Your task to perform on an android device: toggle improve location accuracy Image 0: 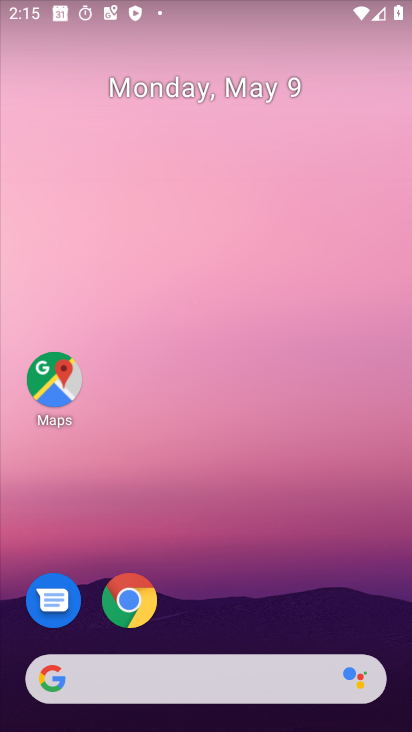
Step 0: drag from (235, 612) to (272, 258)
Your task to perform on an android device: toggle improve location accuracy Image 1: 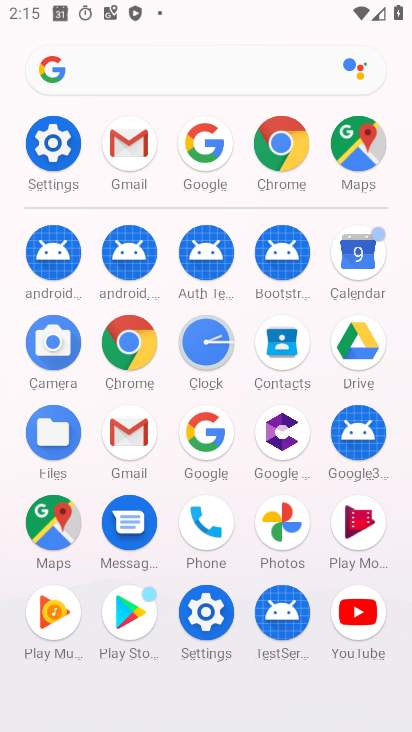
Step 1: click (223, 621)
Your task to perform on an android device: toggle improve location accuracy Image 2: 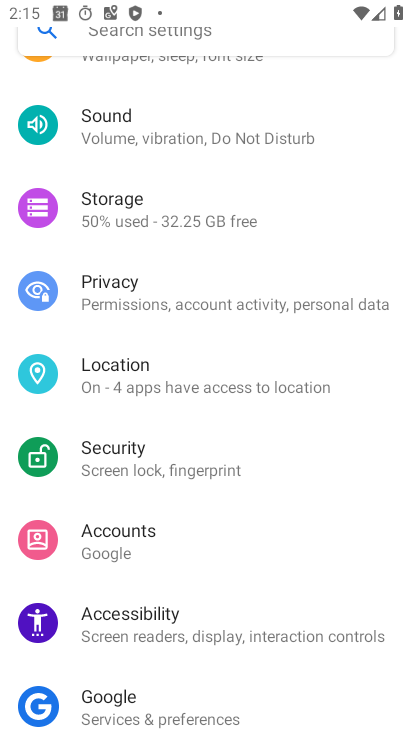
Step 2: click (189, 389)
Your task to perform on an android device: toggle improve location accuracy Image 3: 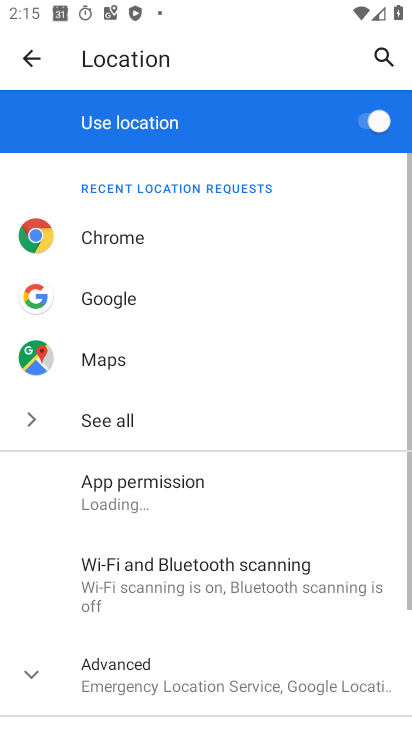
Step 3: drag from (240, 659) to (229, 277)
Your task to perform on an android device: toggle improve location accuracy Image 4: 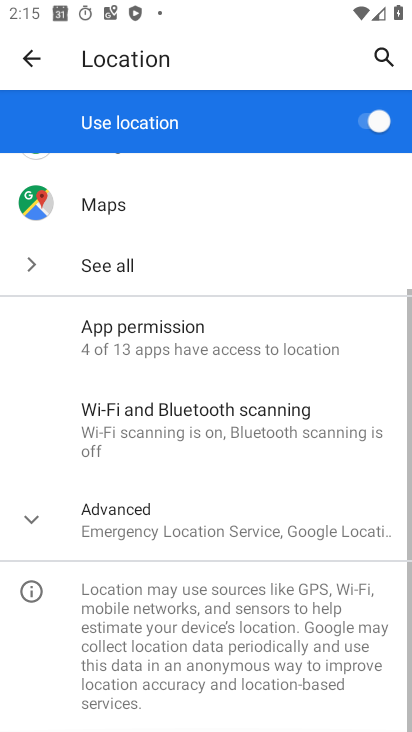
Step 4: click (199, 534)
Your task to perform on an android device: toggle improve location accuracy Image 5: 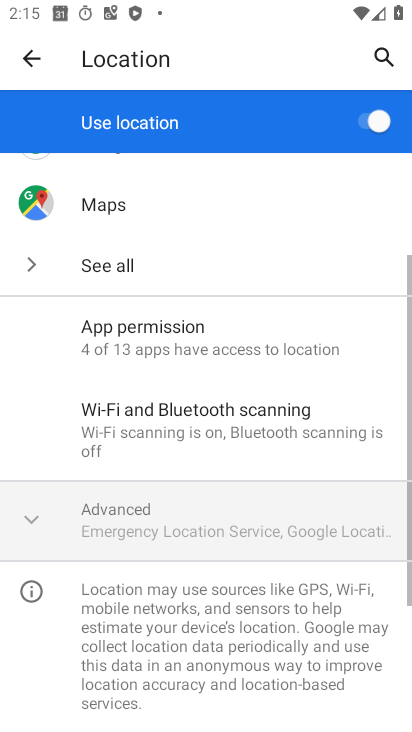
Step 5: drag from (204, 489) to (238, 188)
Your task to perform on an android device: toggle improve location accuracy Image 6: 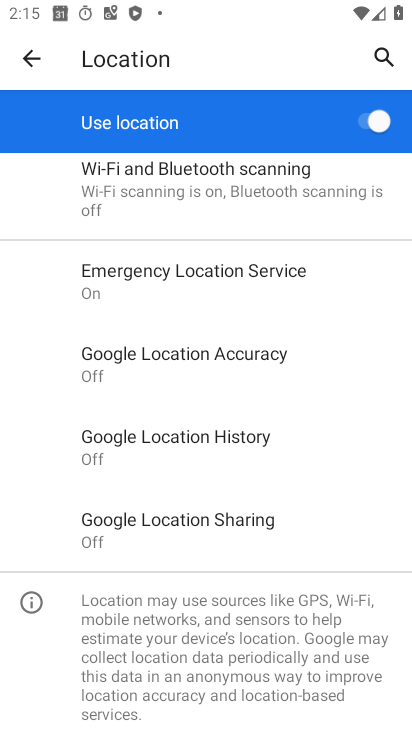
Step 6: click (256, 362)
Your task to perform on an android device: toggle improve location accuracy Image 7: 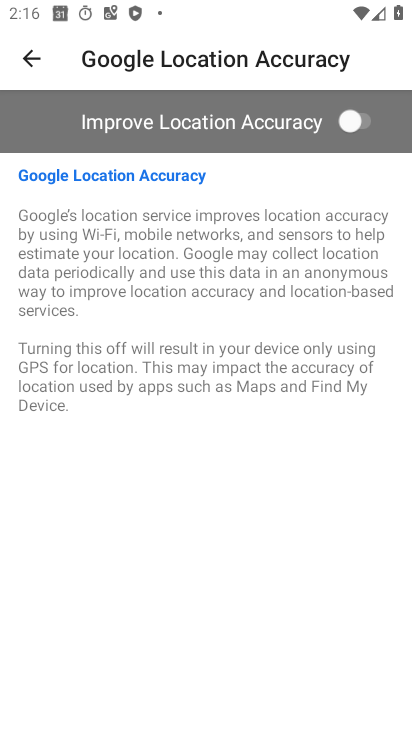
Step 7: click (344, 114)
Your task to perform on an android device: toggle improve location accuracy Image 8: 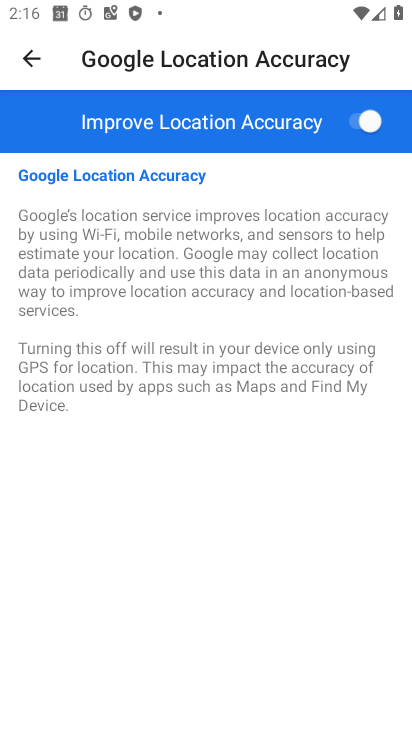
Step 8: task complete